Your task to perform on an android device: stop showing notifications on the lock screen Image 0: 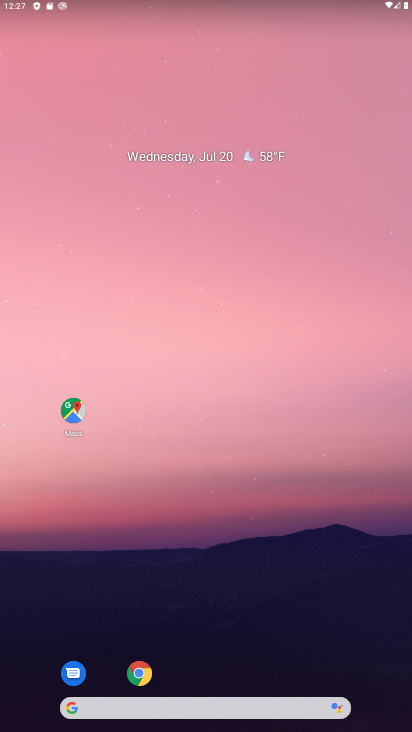
Step 0: drag from (247, 667) to (293, 114)
Your task to perform on an android device: stop showing notifications on the lock screen Image 1: 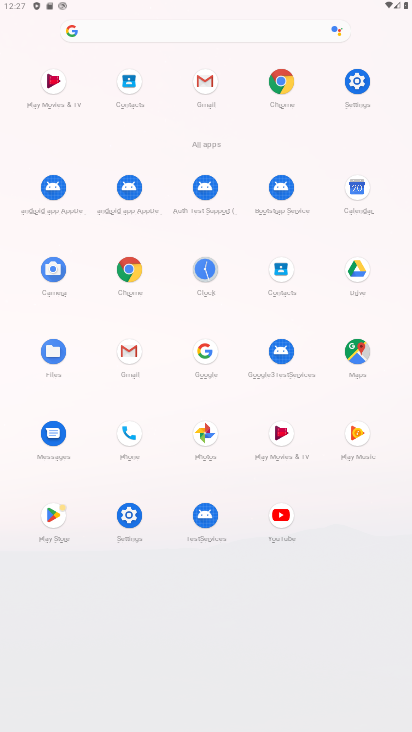
Step 1: click (121, 510)
Your task to perform on an android device: stop showing notifications on the lock screen Image 2: 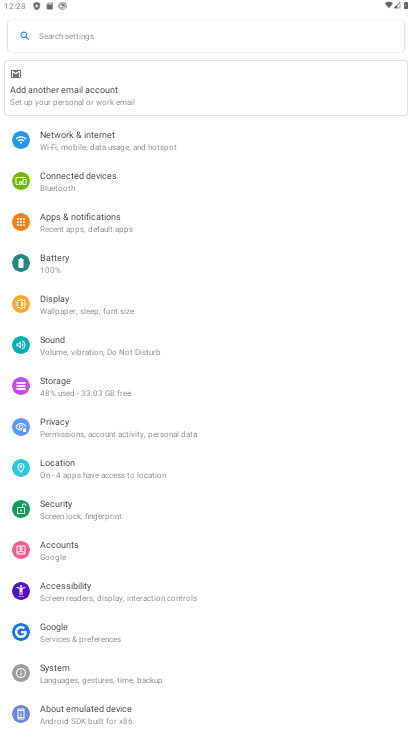
Step 2: click (110, 221)
Your task to perform on an android device: stop showing notifications on the lock screen Image 3: 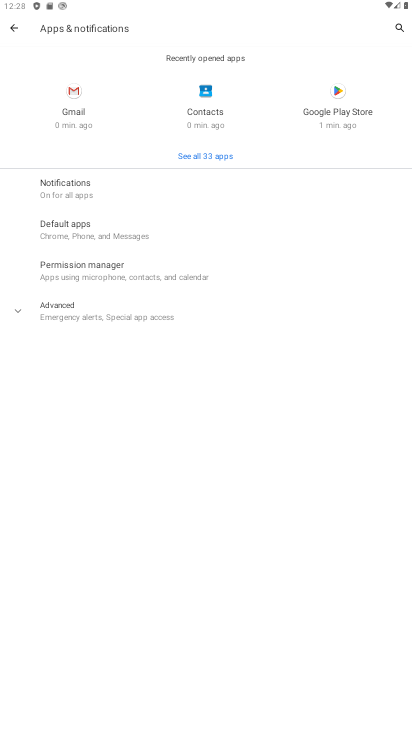
Step 3: click (86, 179)
Your task to perform on an android device: stop showing notifications on the lock screen Image 4: 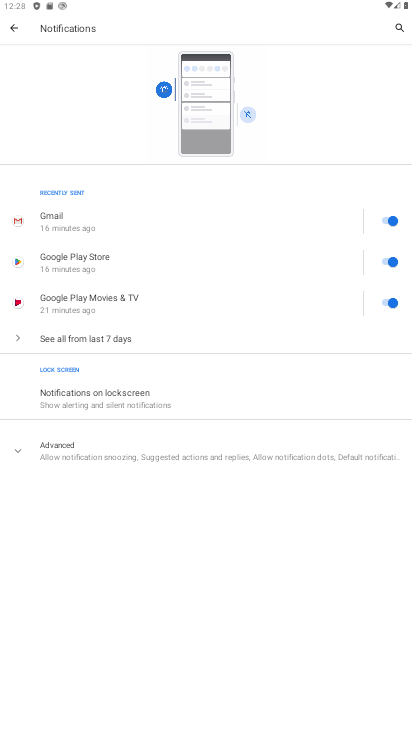
Step 4: click (105, 391)
Your task to perform on an android device: stop showing notifications on the lock screen Image 5: 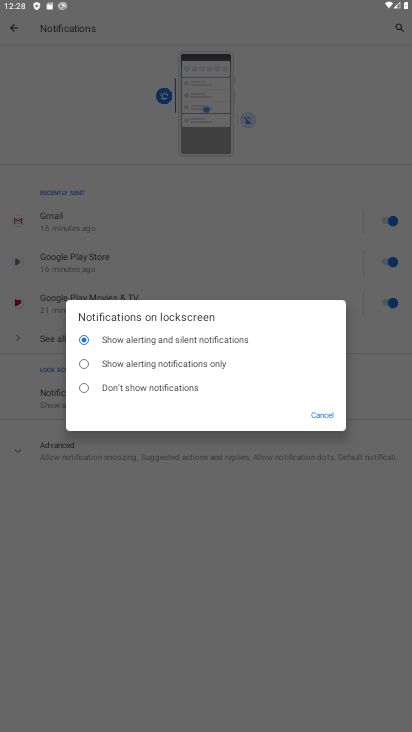
Step 5: click (127, 395)
Your task to perform on an android device: stop showing notifications on the lock screen Image 6: 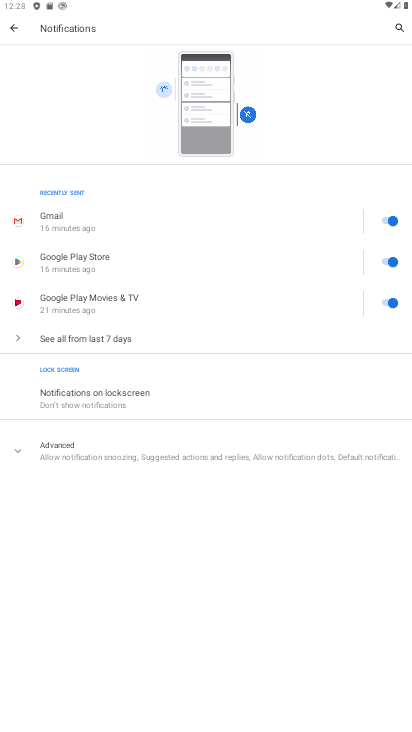
Step 6: task complete